Your task to perform on an android device: Open Youtube and go to "Your channel" Image 0: 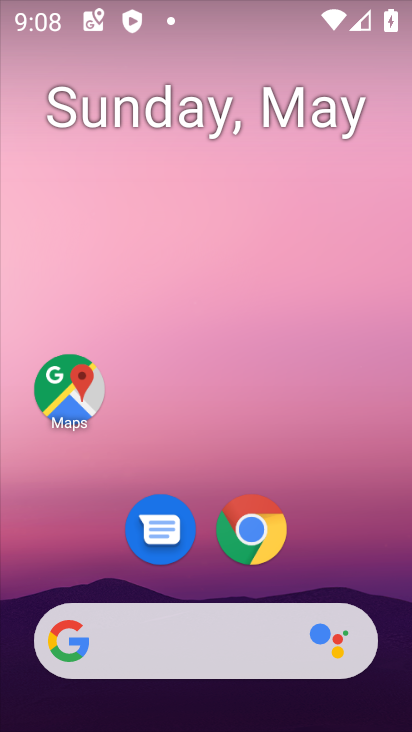
Step 0: drag from (352, 573) to (329, 79)
Your task to perform on an android device: Open Youtube and go to "Your channel" Image 1: 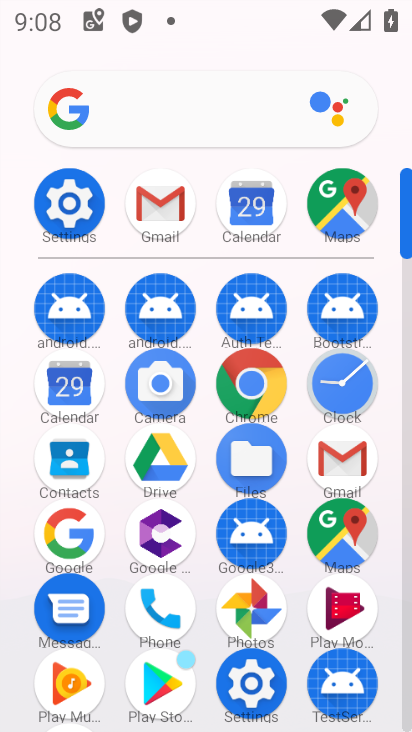
Step 1: click (409, 623)
Your task to perform on an android device: Open Youtube and go to "Your channel" Image 2: 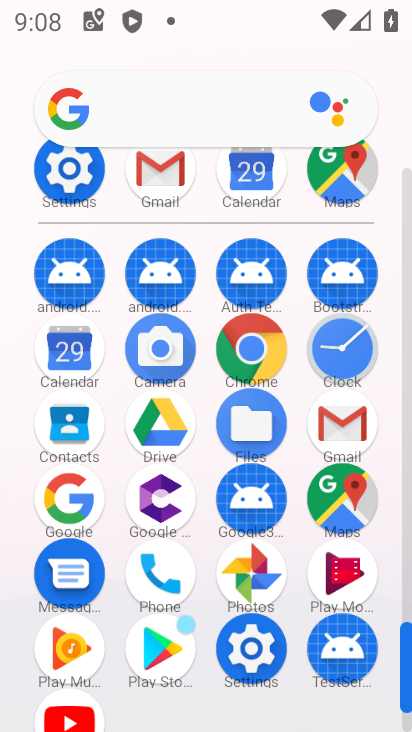
Step 2: click (69, 707)
Your task to perform on an android device: Open Youtube and go to "Your channel" Image 3: 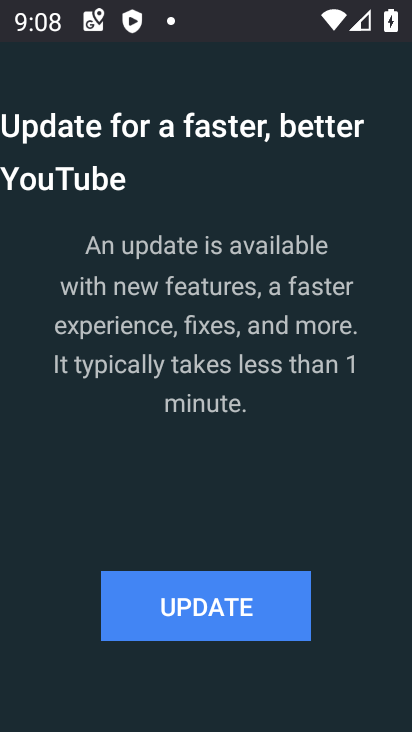
Step 3: click (183, 594)
Your task to perform on an android device: Open Youtube and go to "Your channel" Image 4: 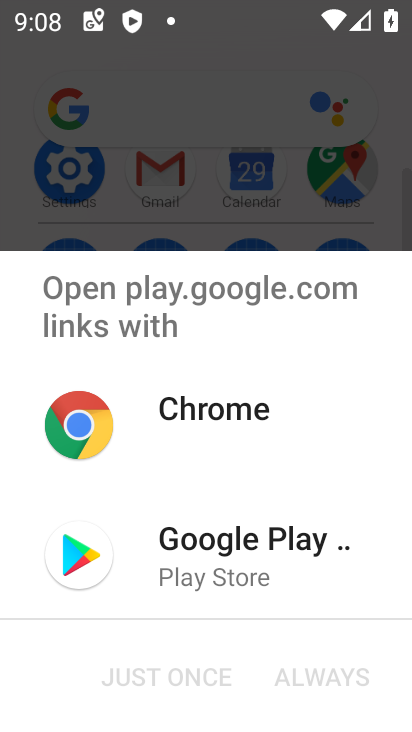
Step 4: click (174, 559)
Your task to perform on an android device: Open Youtube and go to "Your channel" Image 5: 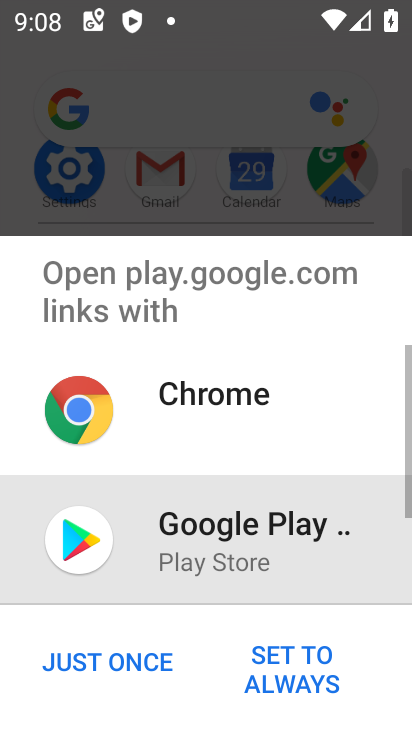
Step 5: click (92, 677)
Your task to perform on an android device: Open Youtube and go to "Your channel" Image 6: 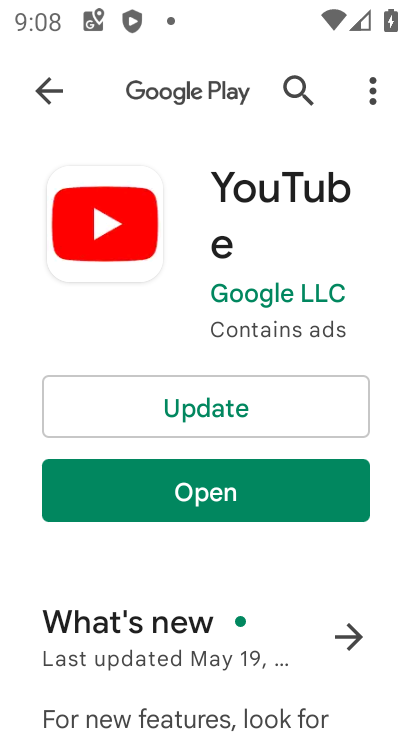
Step 6: click (277, 416)
Your task to perform on an android device: Open Youtube and go to "Your channel" Image 7: 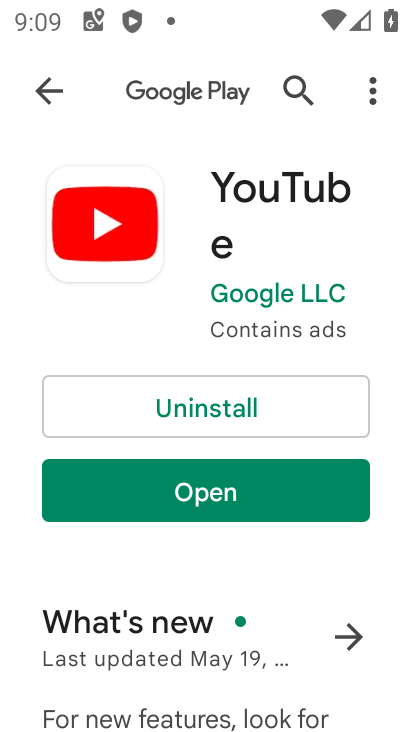
Step 7: click (238, 508)
Your task to perform on an android device: Open Youtube and go to "Your channel" Image 8: 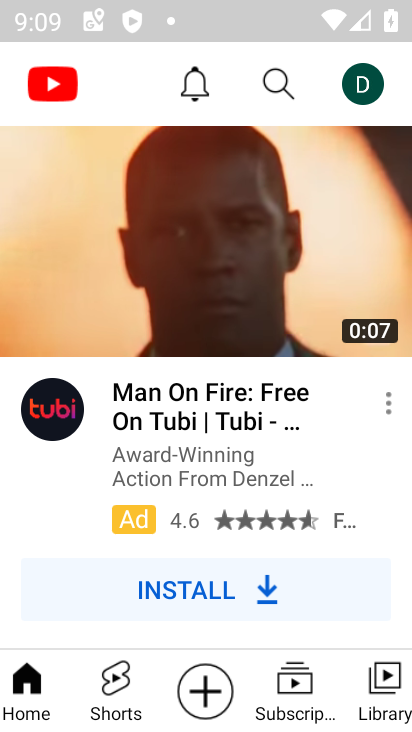
Step 8: task complete